Your task to perform on an android device: Look up the new steph curry shoes Image 0: 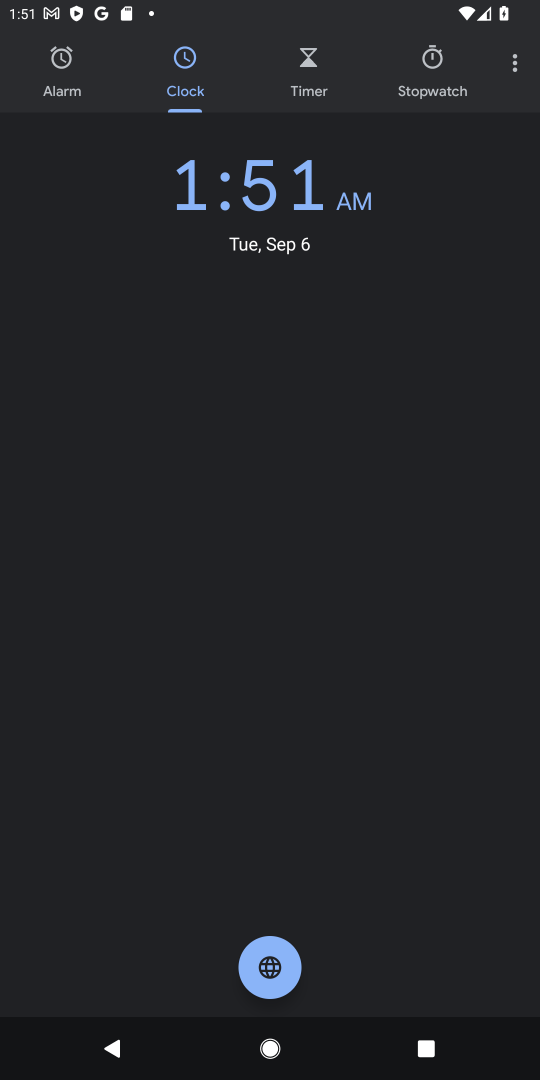
Step 0: press home button
Your task to perform on an android device: Look up the new steph curry shoes Image 1: 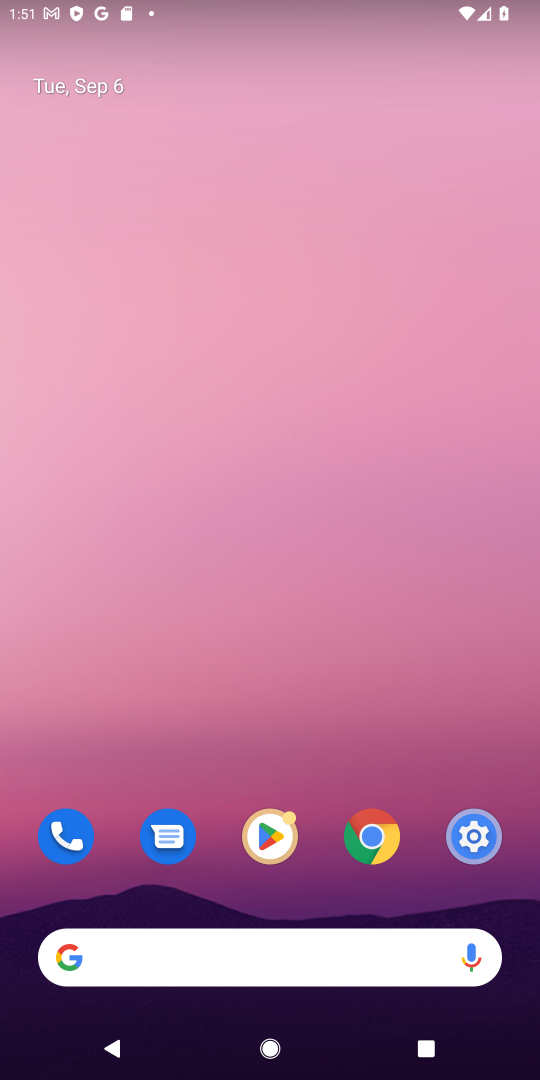
Step 1: click (522, 918)
Your task to perform on an android device: Look up the new steph curry shoes Image 2: 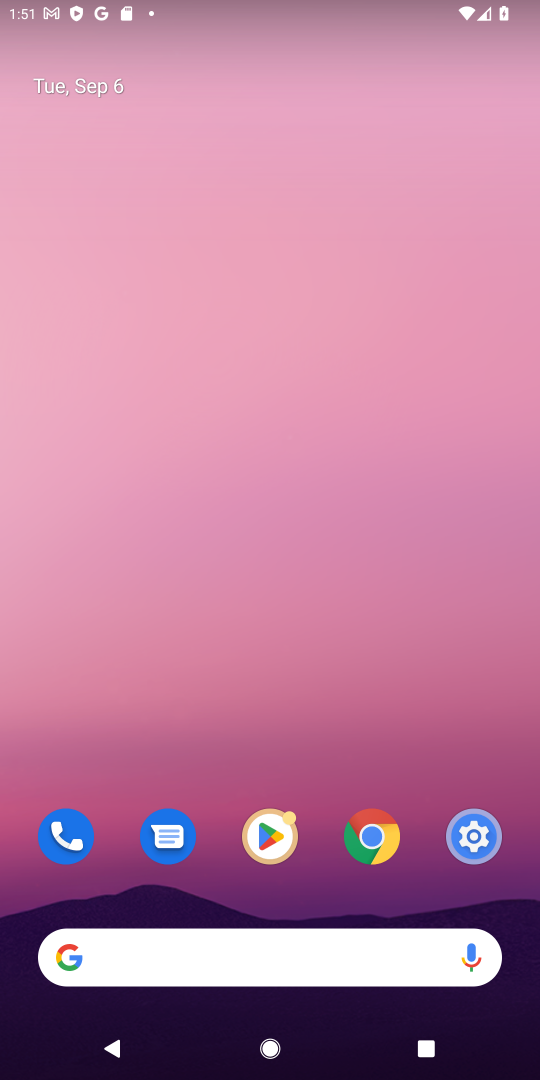
Step 2: click (289, 959)
Your task to perform on an android device: Look up the new steph curry shoes Image 3: 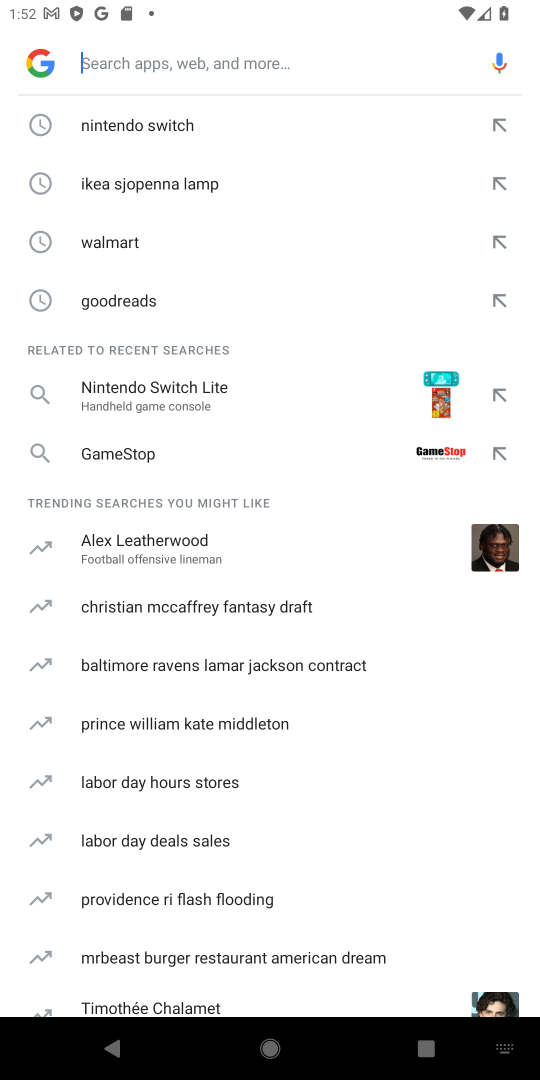
Step 3: type "new steph curry shoes"
Your task to perform on an android device: Look up the new steph curry shoes Image 4: 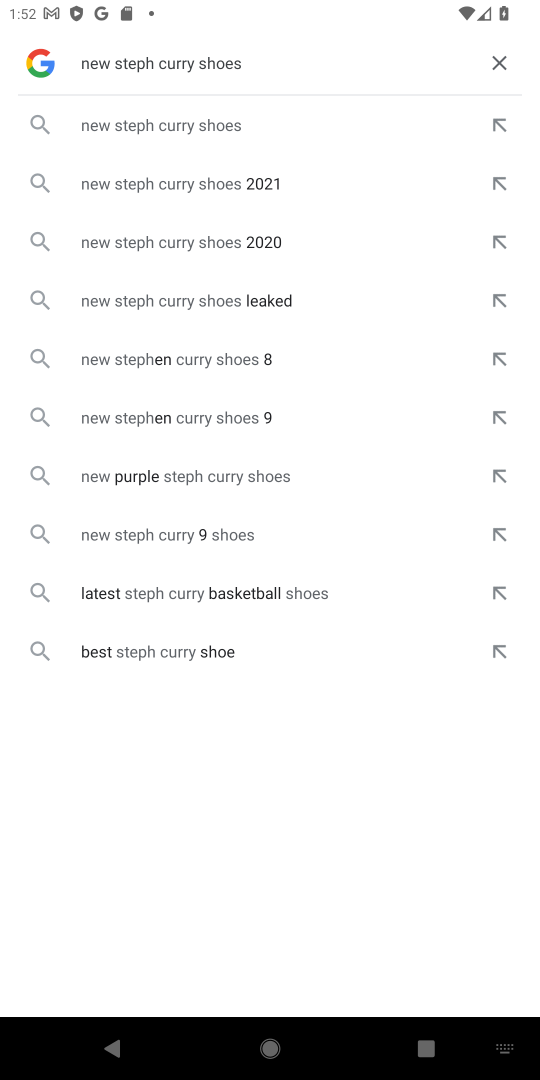
Step 4: click (222, 129)
Your task to perform on an android device: Look up the new steph curry shoes Image 5: 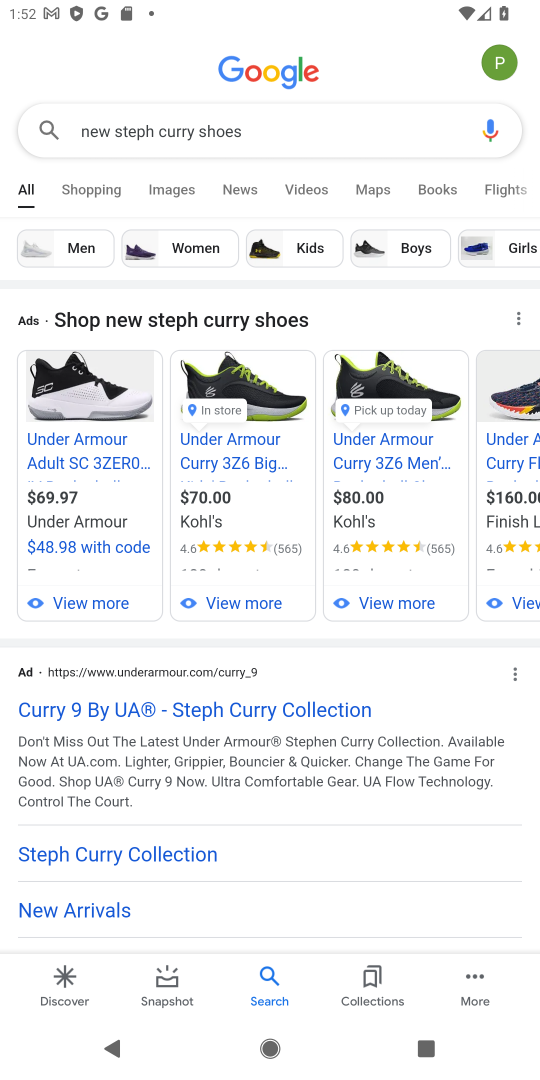
Step 5: task complete